Your task to perform on an android device: Open Maps and search for coffee Image 0: 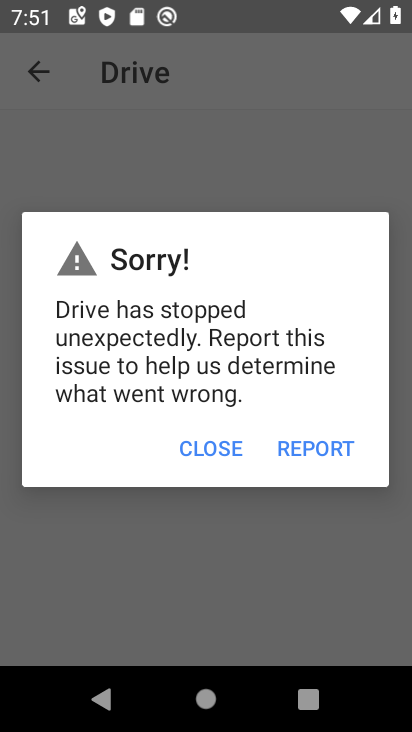
Step 0: press home button
Your task to perform on an android device: Open Maps and search for coffee Image 1: 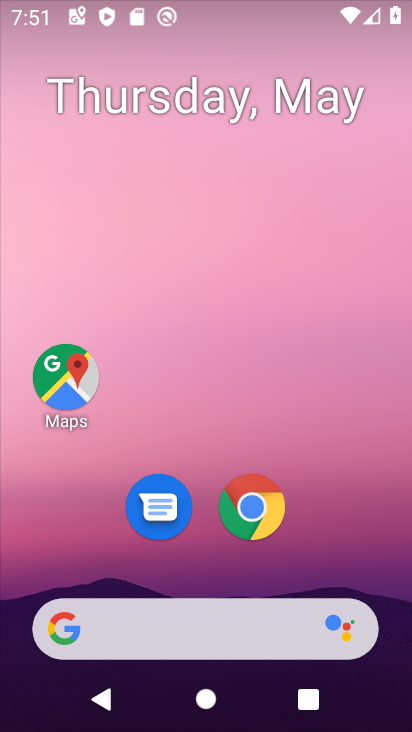
Step 1: drag from (197, 623) to (200, 213)
Your task to perform on an android device: Open Maps and search for coffee Image 2: 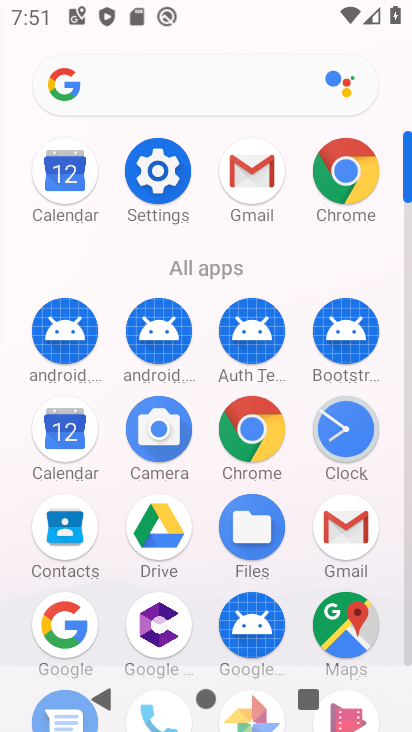
Step 2: click (349, 610)
Your task to perform on an android device: Open Maps and search for coffee Image 3: 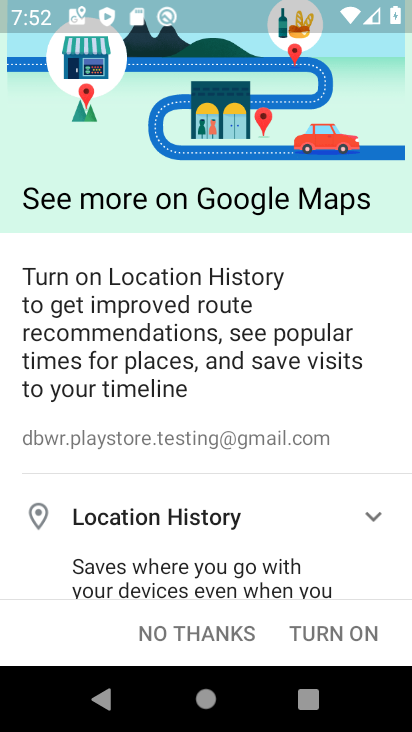
Step 3: click (193, 632)
Your task to perform on an android device: Open Maps and search for coffee Image 4: 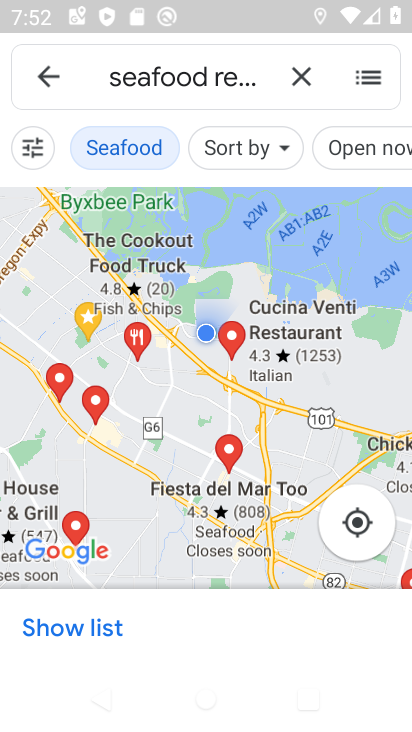
Step 4: click (303, 77)
Your task to perform on an android device: Open Maps and search for coffee Image 5: 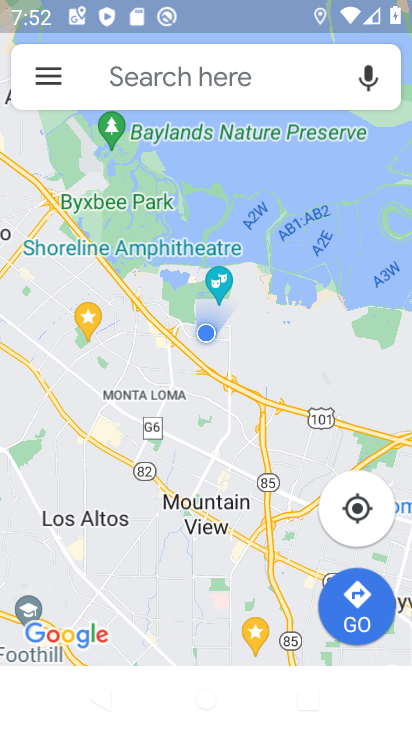
Step 5: click (197, 73)
Your task to perform on an android device: Open Maps and search for coffee Image 6: 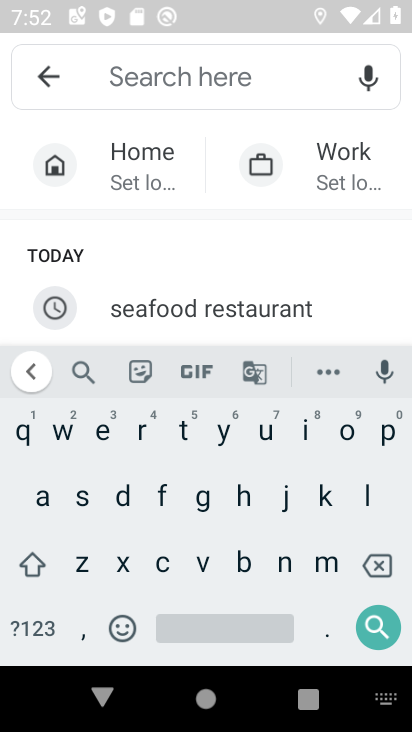
Step 6: click (157, 563)
Your task to perform on an android device: Open Maps and search for coffee Image 7: 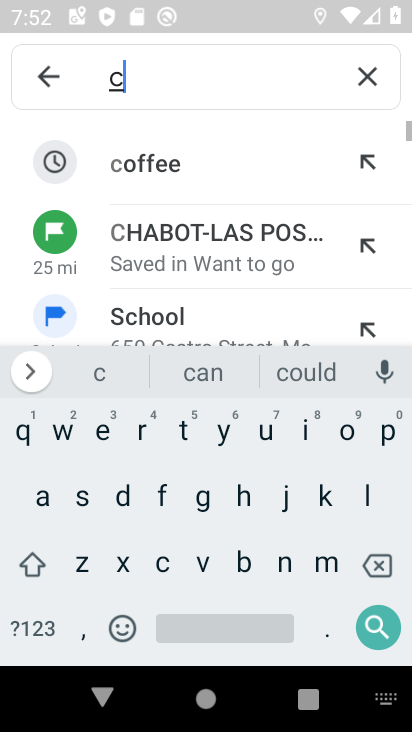
Step 7: click (171, 182)
Your task to perform on an android device: Open Maps and search for coffee Image 8: 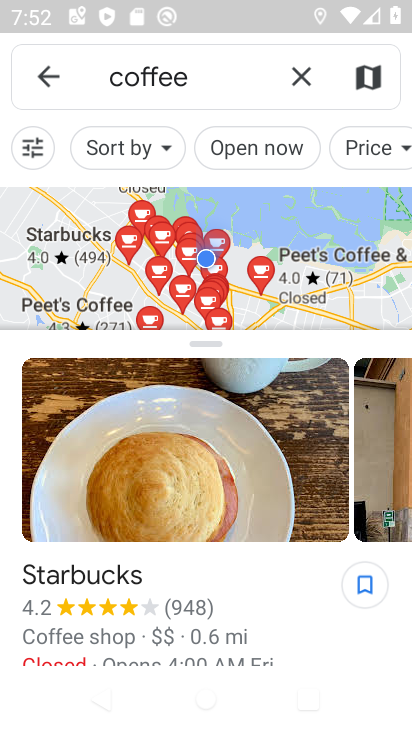
Step 8: click (121, 287)
Your task to perform on an android device: Open Maps and search for coffee Image 9: 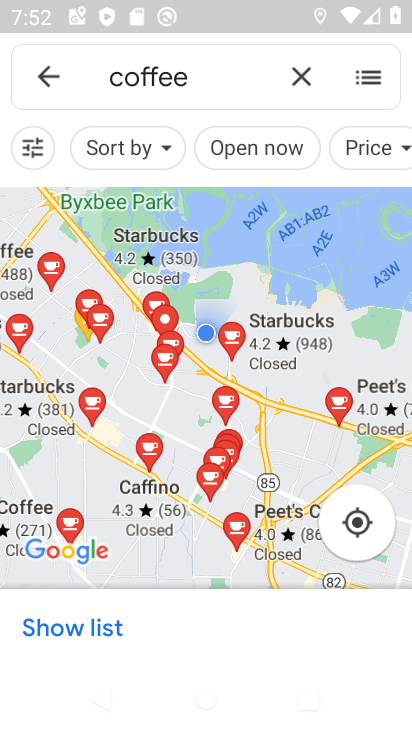
Step 9: task complete